Your task to perform on an android device: Is it going to rain this weekend? Image 0: 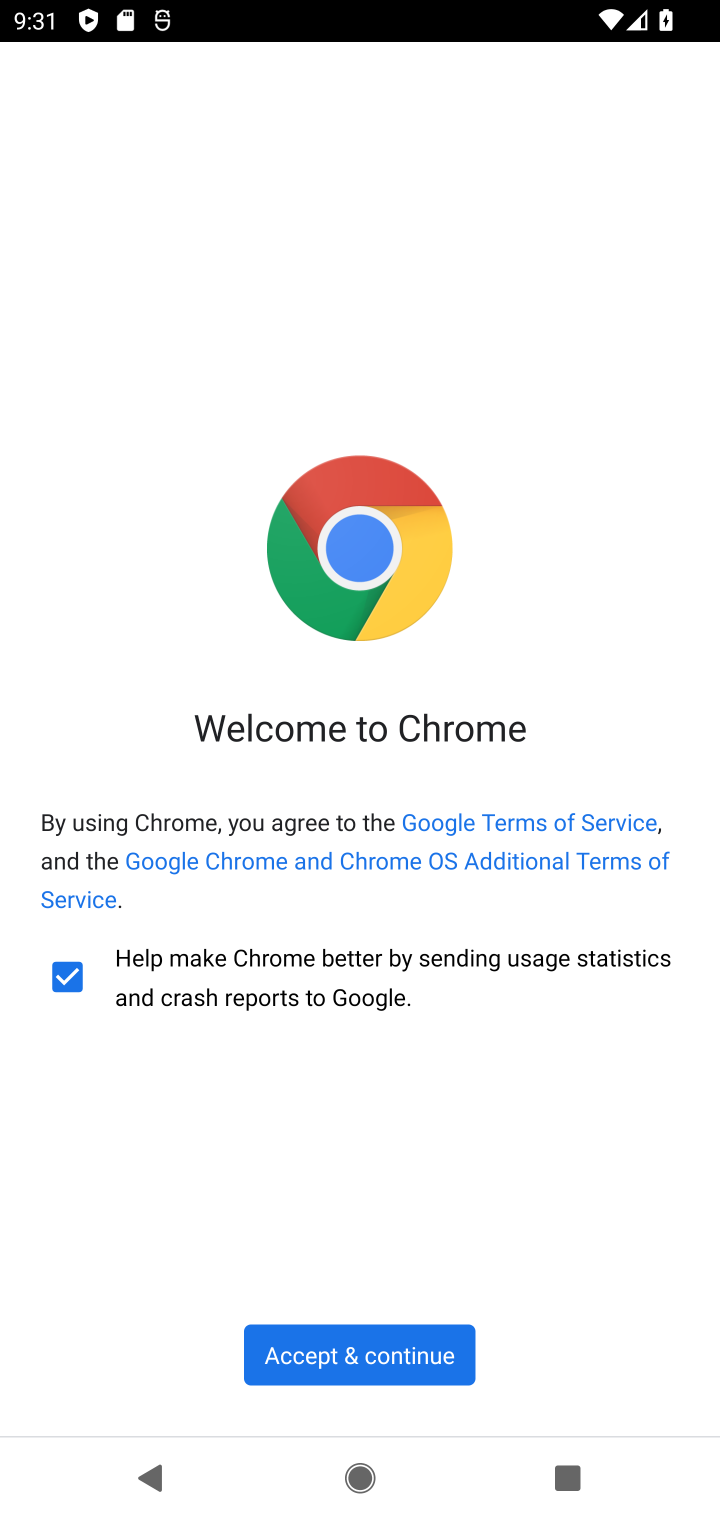
Step 0: press home button
Your task to perform on an android device: Is it going to rain this weekend? Image 1: 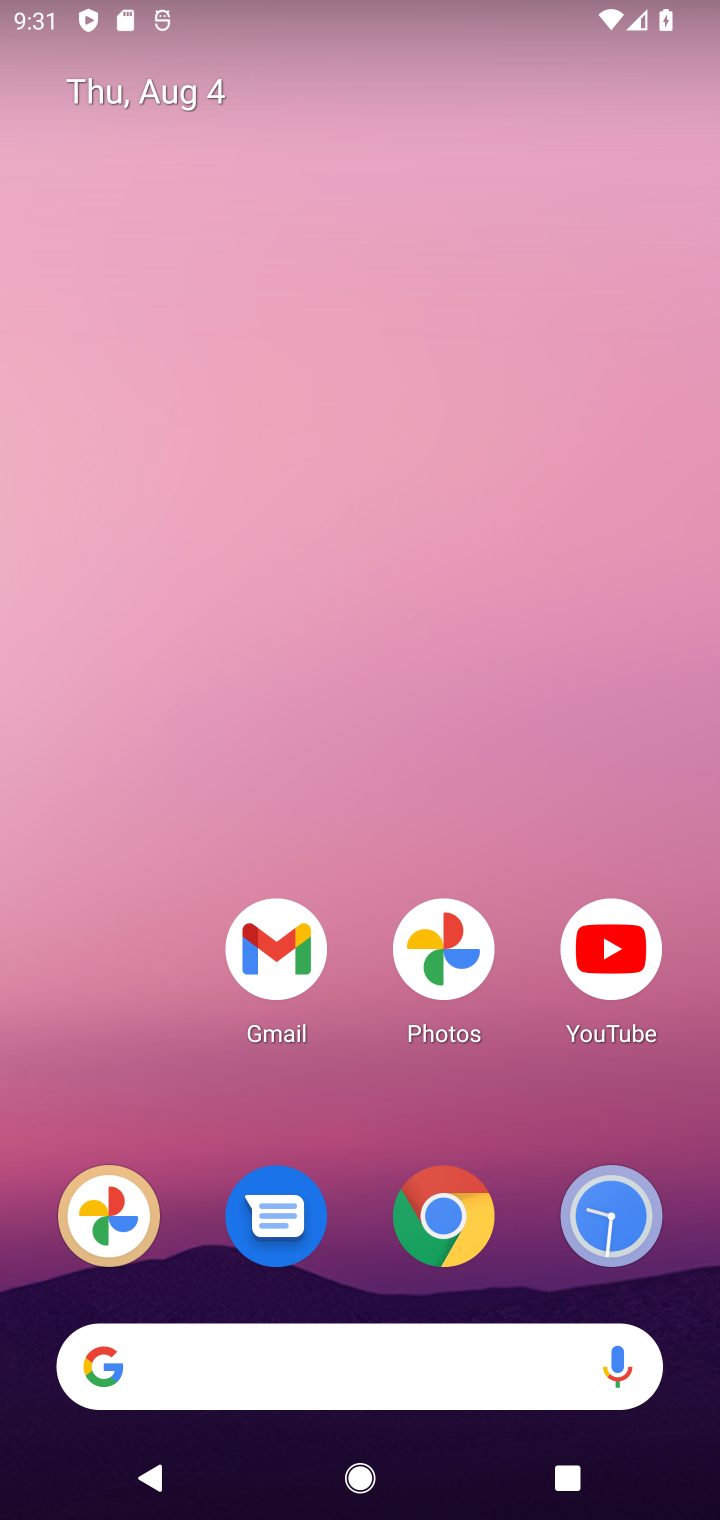
Step 1: drag from (328, 1362) to (299, 420)
Your task to perform on an android device: Is it going to rain this weekend? Image 2: 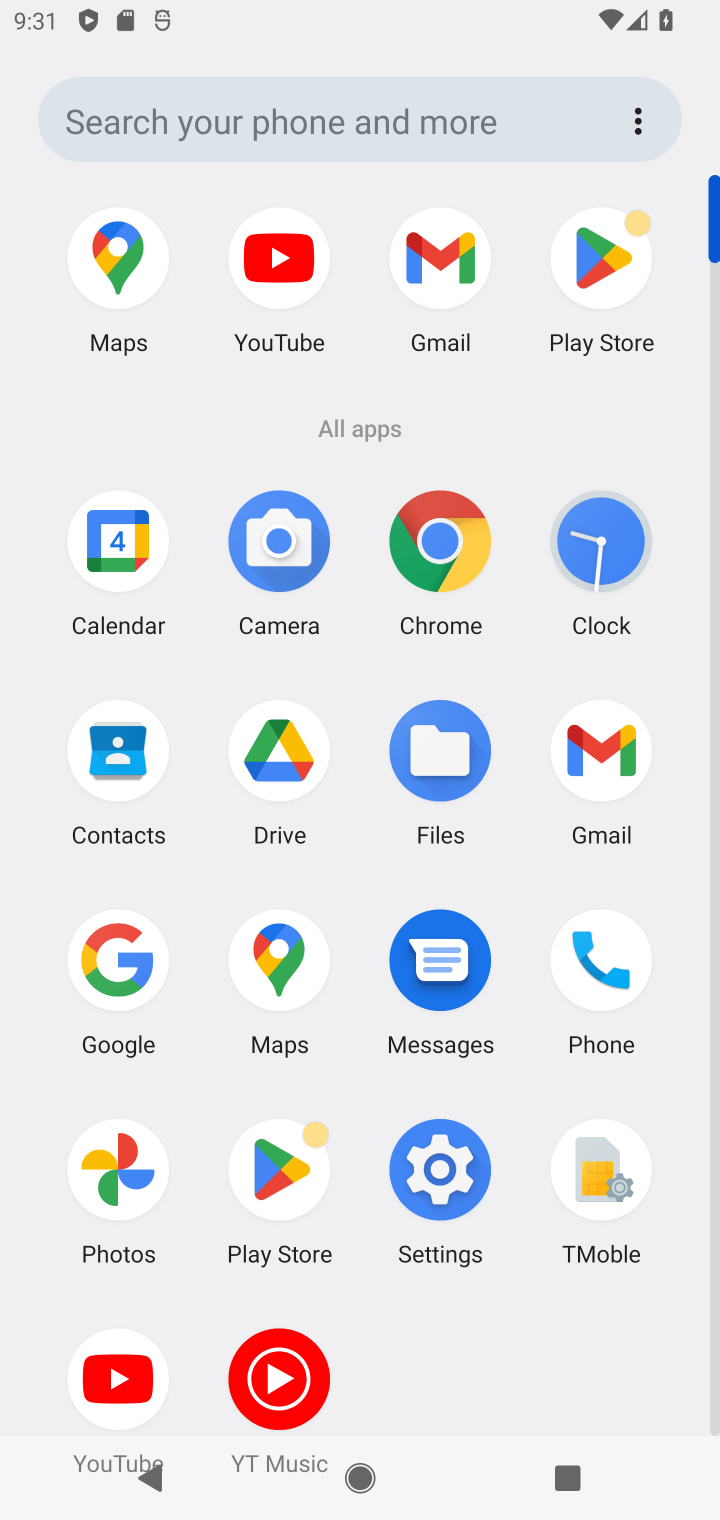
Step 2: click (109, 960)
Your task to perform on an android device: Is it going to rain this weekend? Image 3: 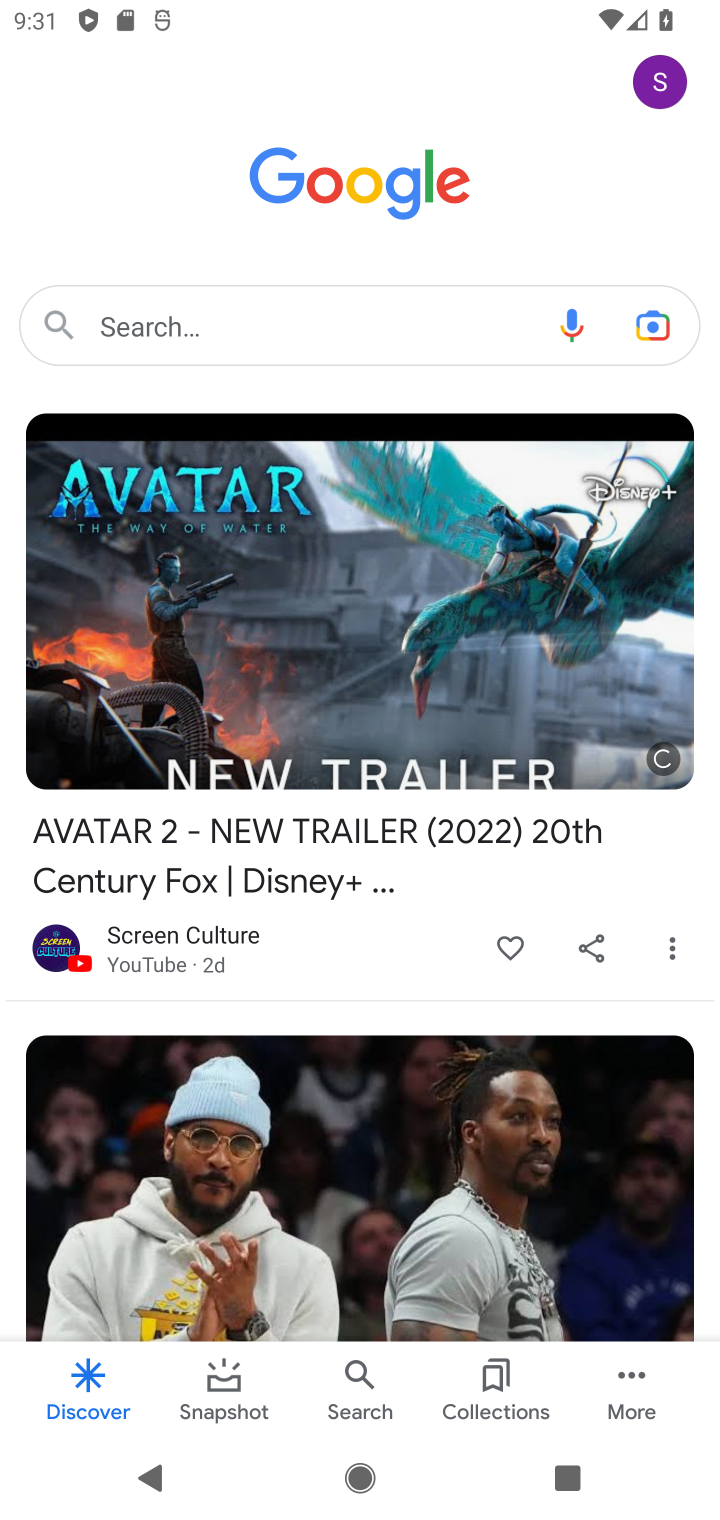
Step 3: click (296, 331)
Your task to perform on an android device: Is it going to rain this weekend? Image 4: 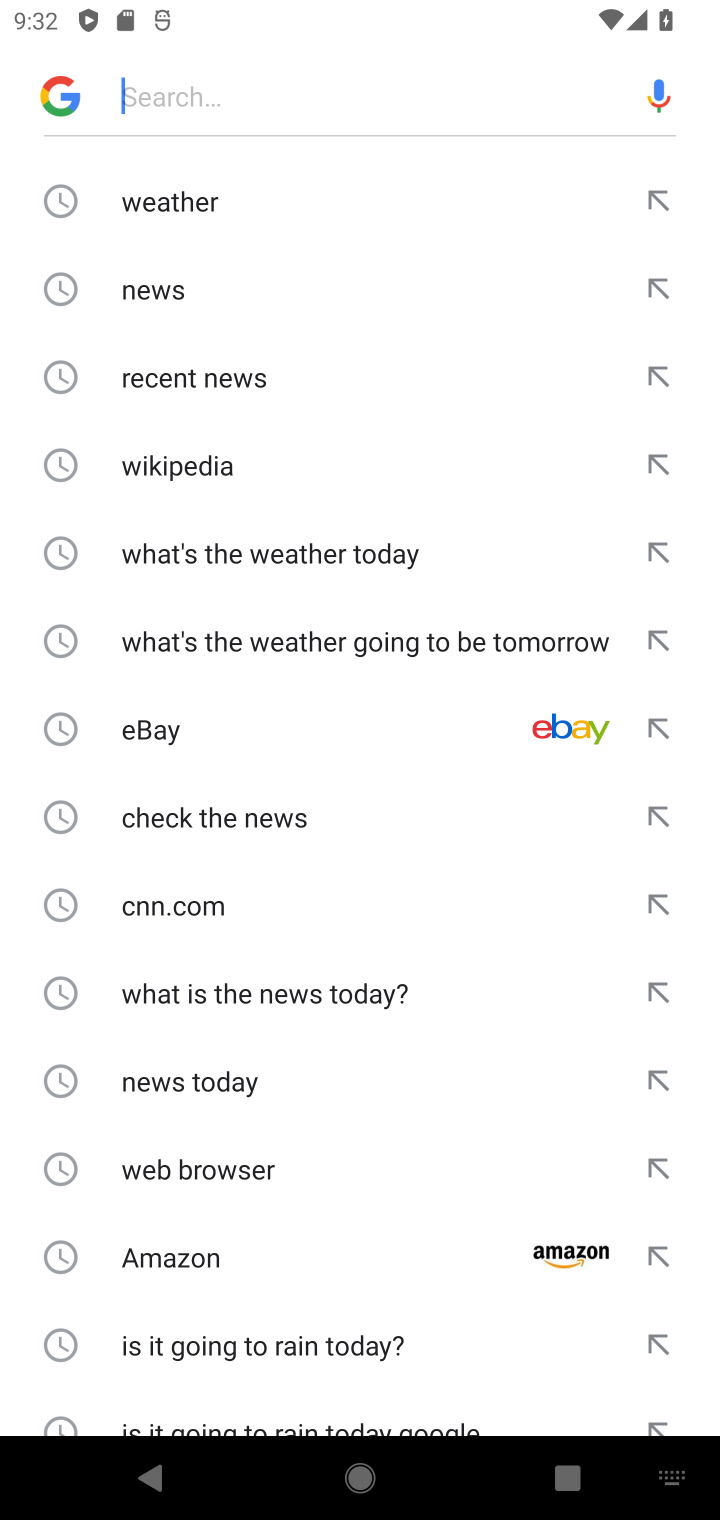
Step 4: type "Is it going to rain this weekend?"
Your task to perform on an android device: Is it going to rain this weekend? Image 5: 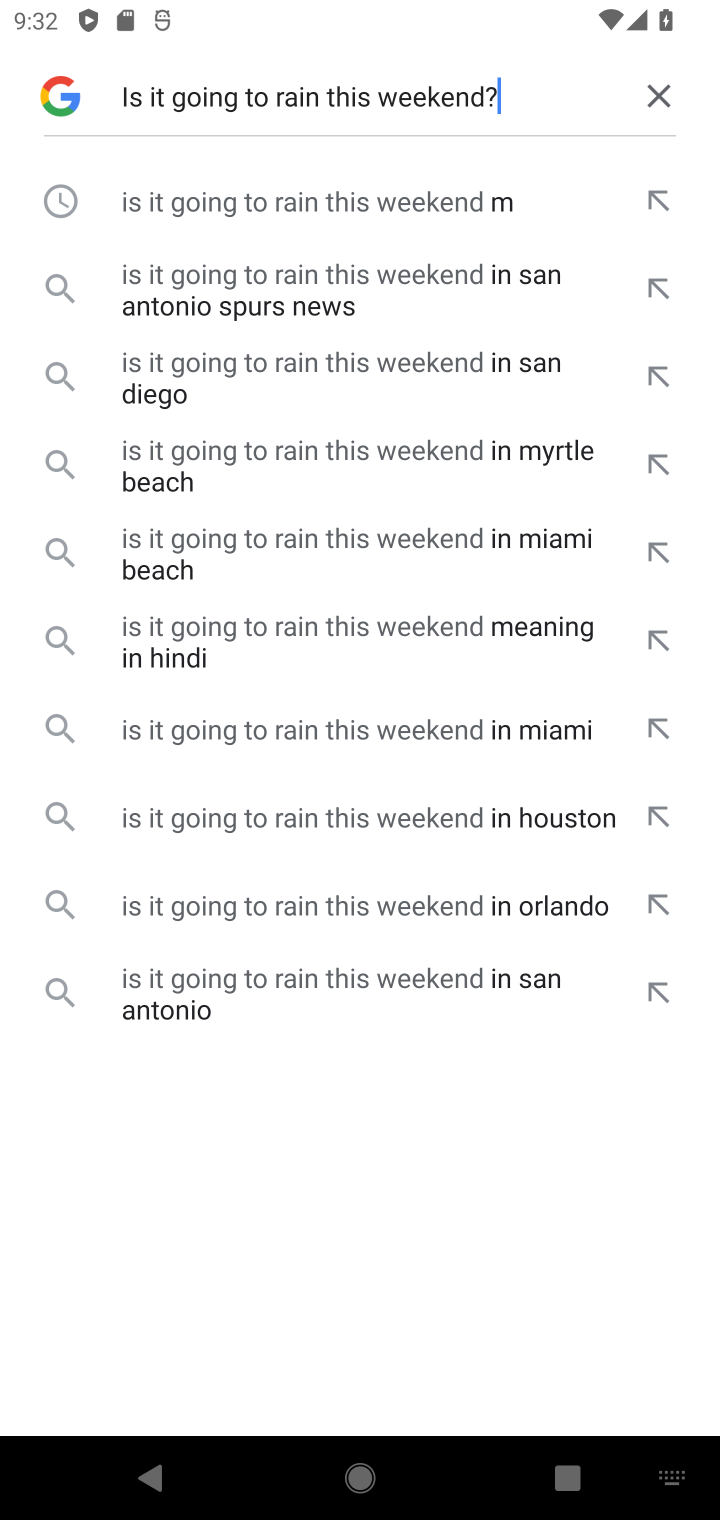
Step 5: click (355, 209)
Your task to perform on an android device: Is it going to rain this weekend? Image 6: 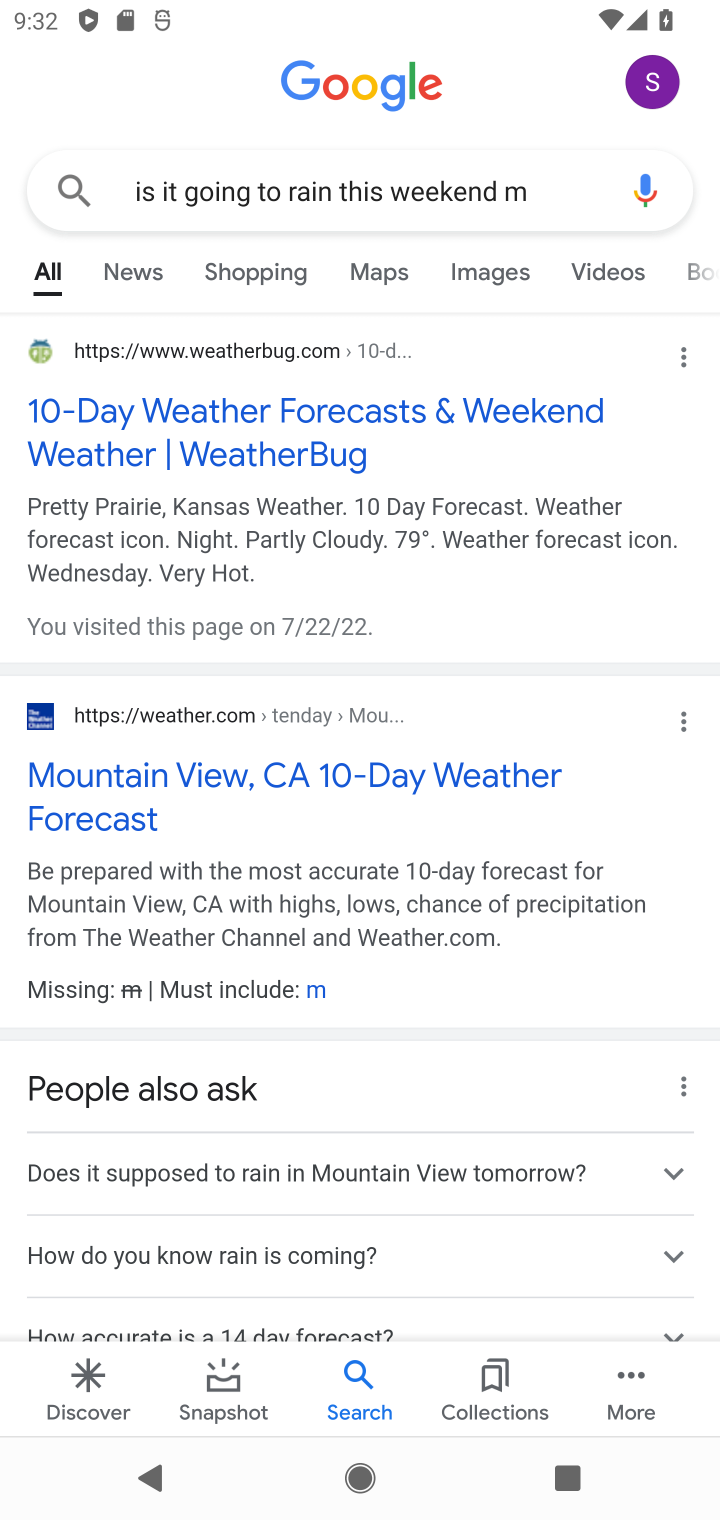
Step 6: click (357, 758)
Your task to perform on an android device: Is it going to rain this weekend? Image 7: 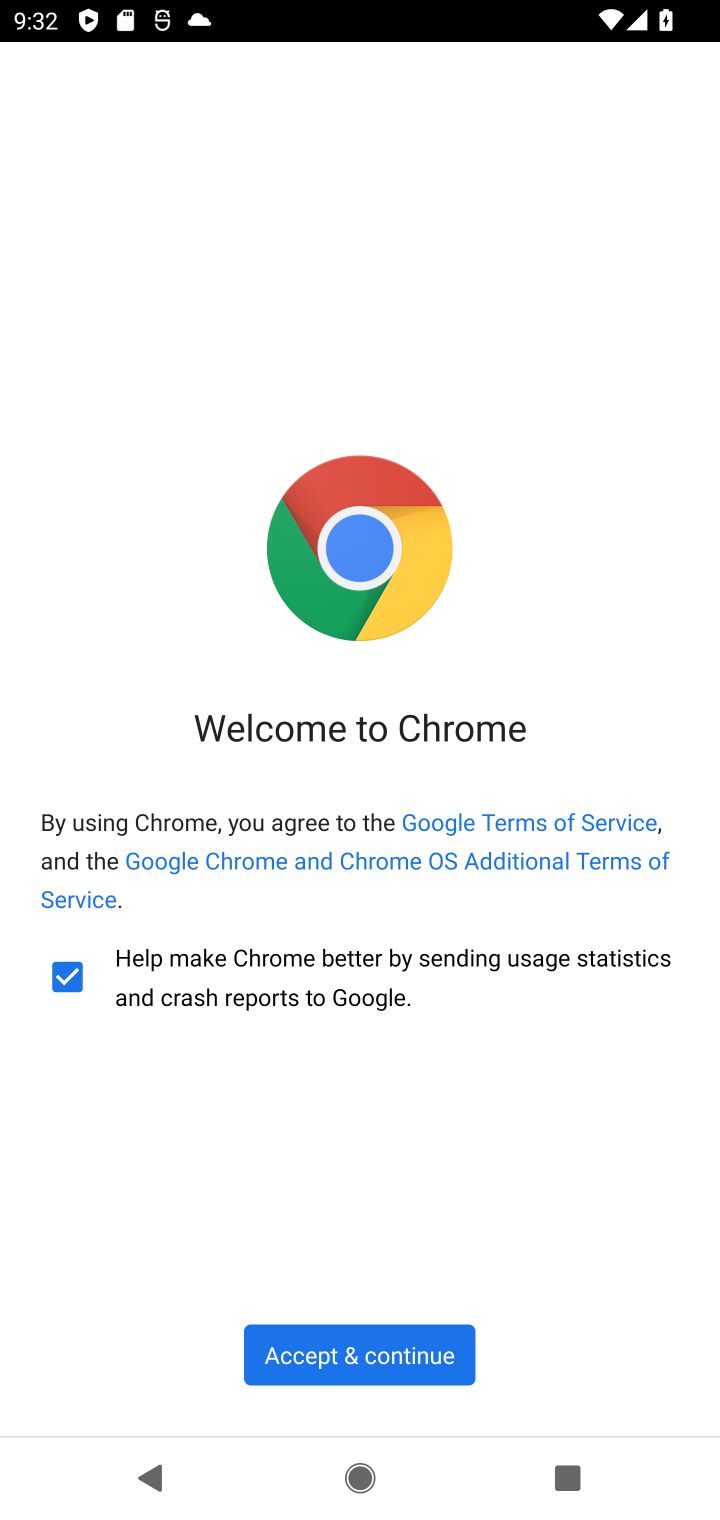
Step 7: click (405, 1362)
Your task to perform on an android device: Is it going to rain this weekend? Image 8: 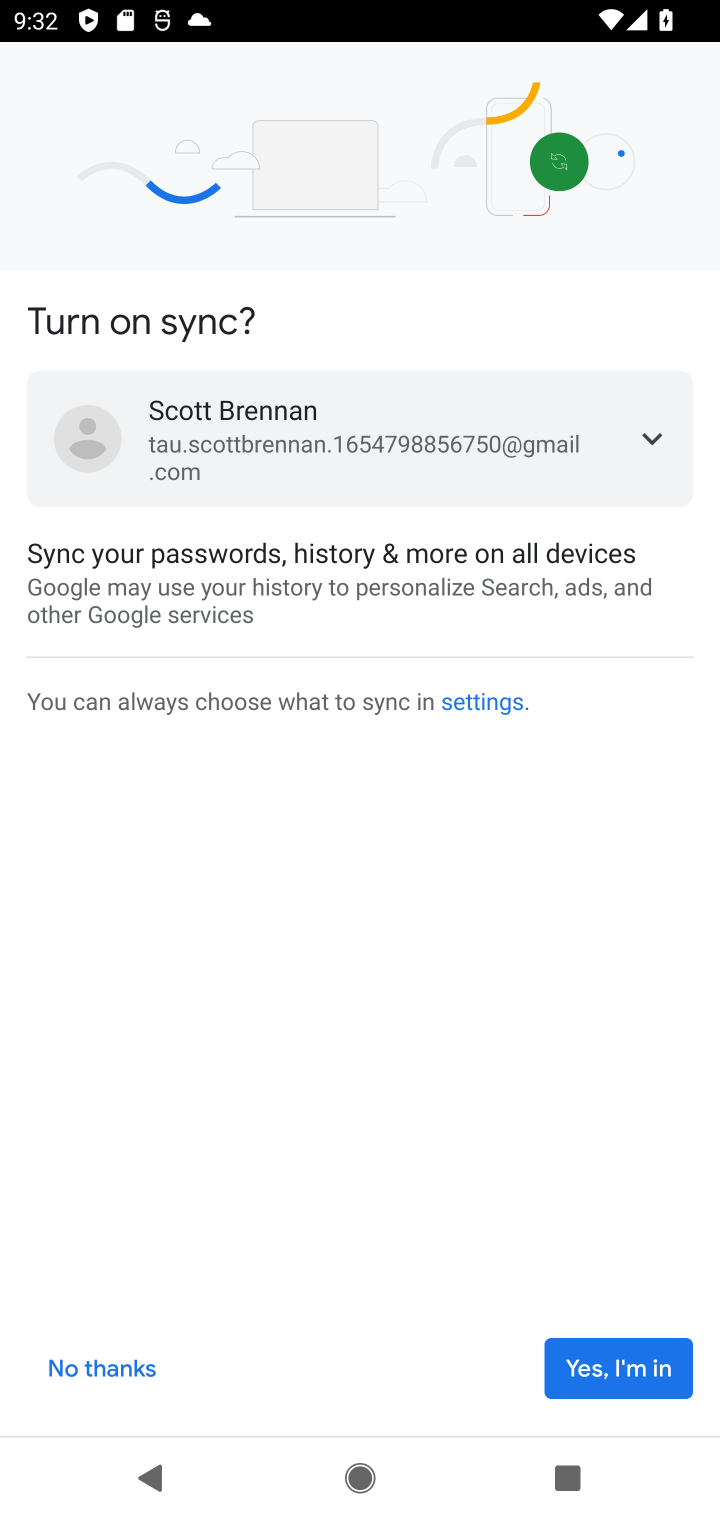
Step 8: click (624, 1375)
Your task to perform on an android device: Is it going to rain this weekend? Image 9: 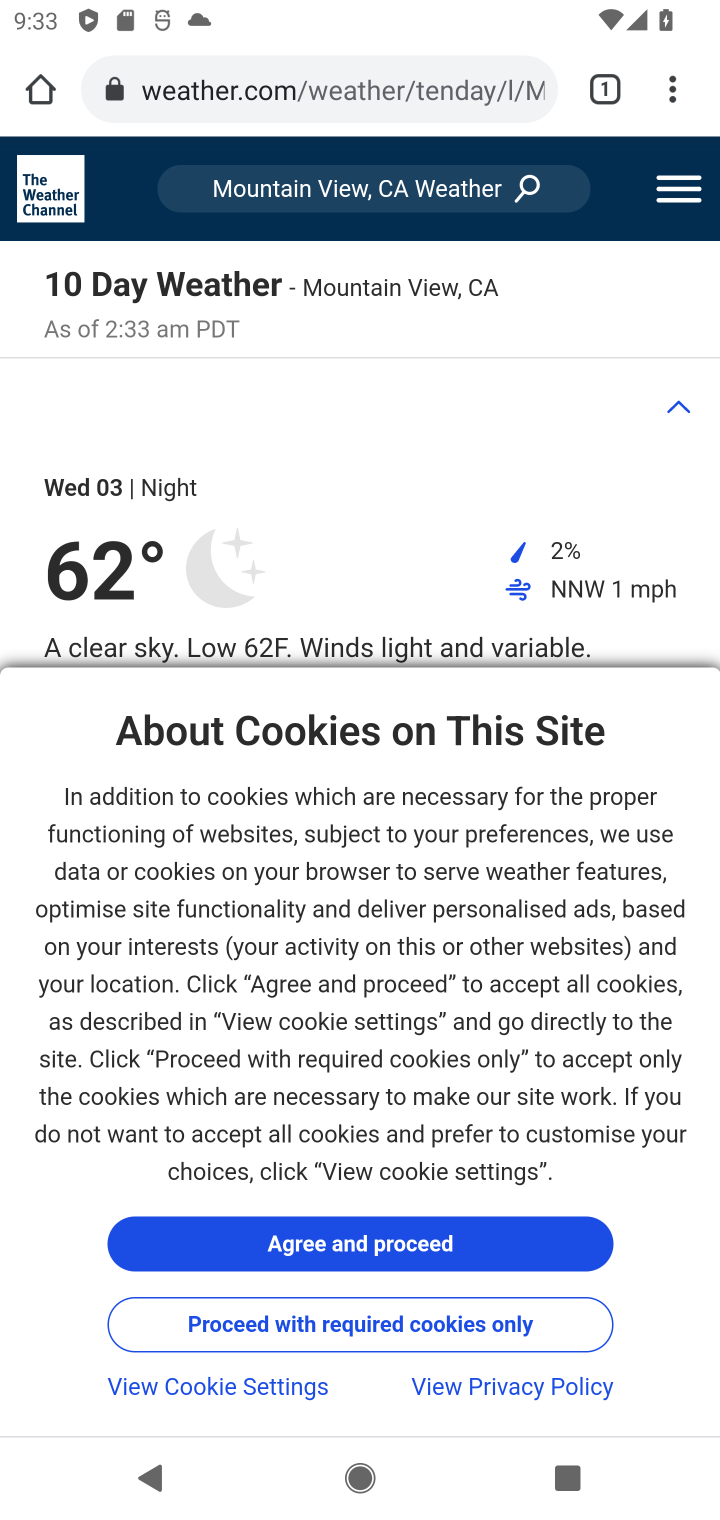
Step 9: click (473, 1247)
Your task to perform on an android device: Is it going to rain this weekend? Image 10: 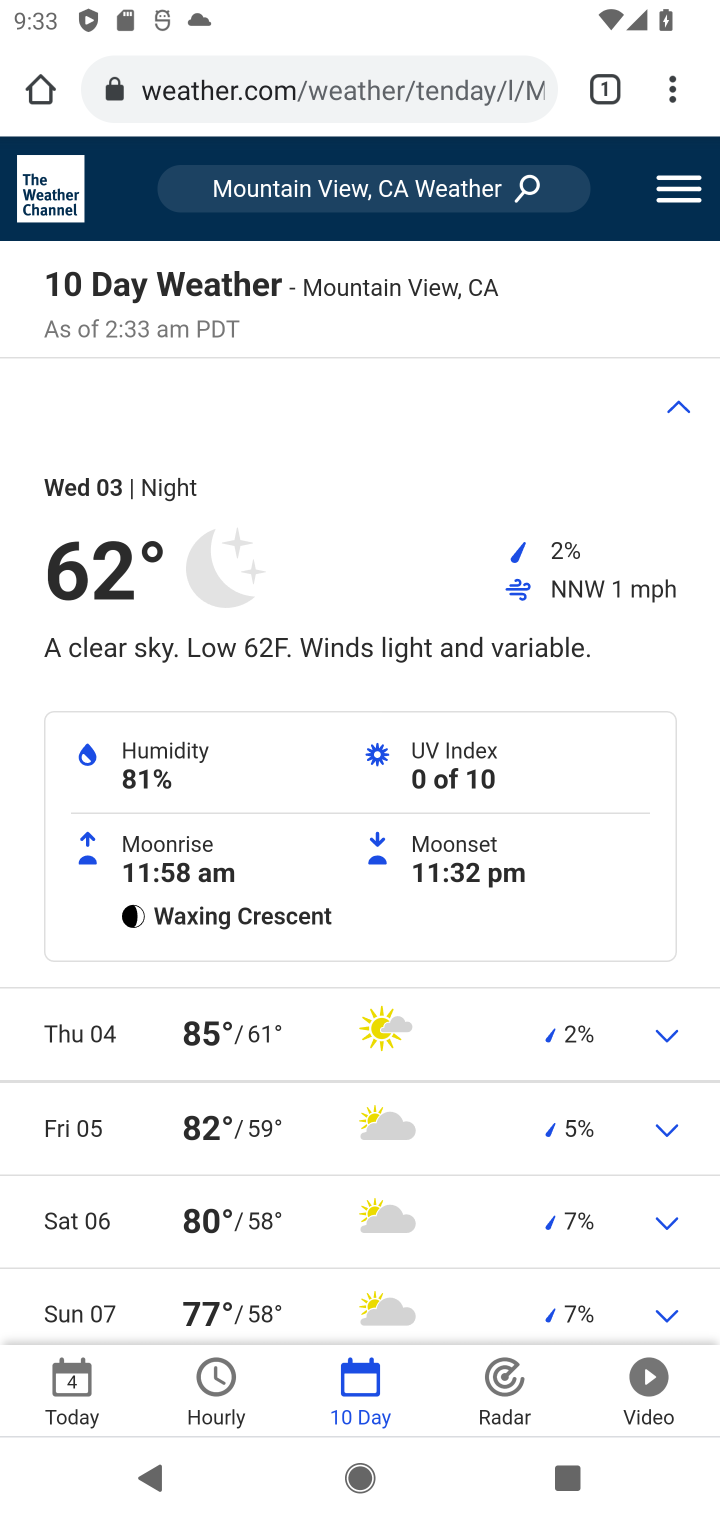
Step 10: task complete